Your task to perform on an android device: turn on airplane mode Image 0: 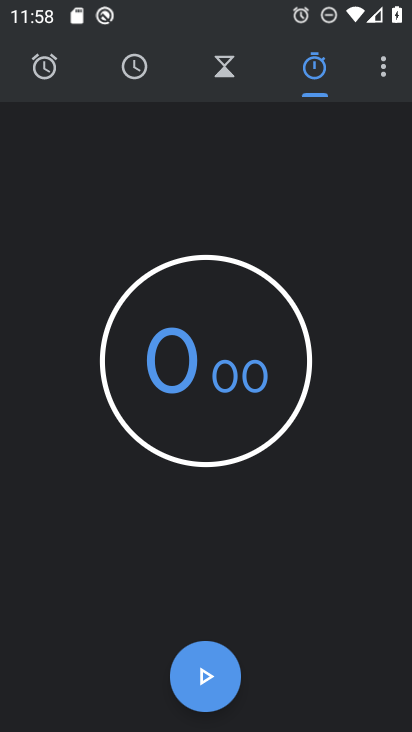
Step 0: press home button
Your task to perform on an android device: turn on airplane mode Image 1: 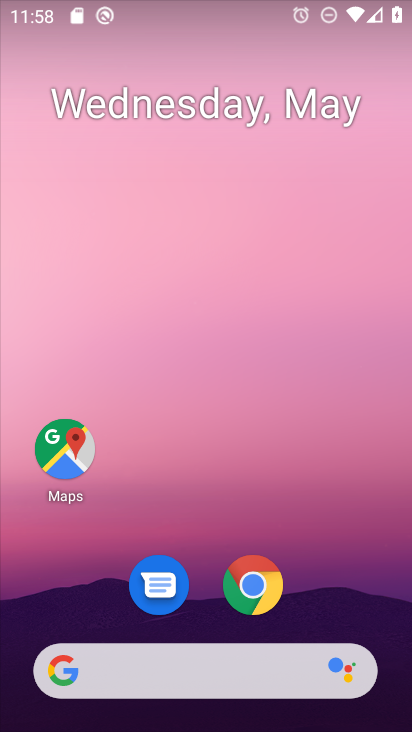
Step 1: drag from (225, 492) to (226, 30)
Your task to perform on an android device: turn on airplane mode Image 2: 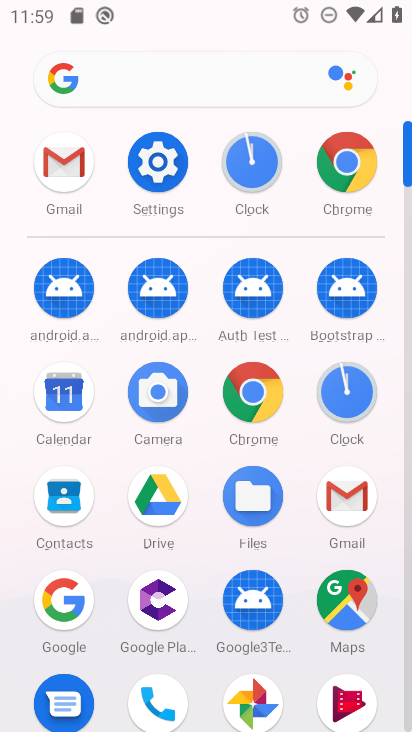
Step 2: click (159, 151)
Your task to perform on an android device: turn on airplane mode Image 3: 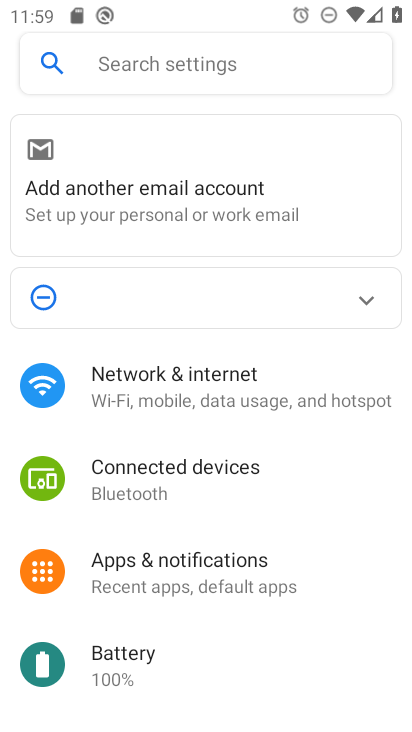
Step 3: click (201, 378)
Your task to perform on an android device: turn on airplane mode Image 4: 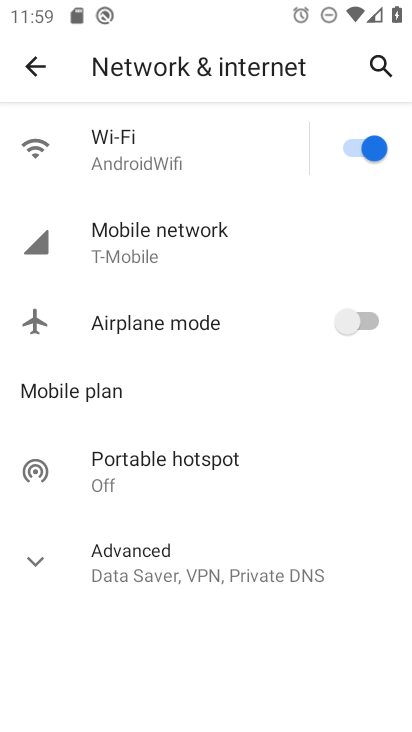
Step 4: click (359, 313)
Your task to perform on an android device: turn on airplane mode Image 5: 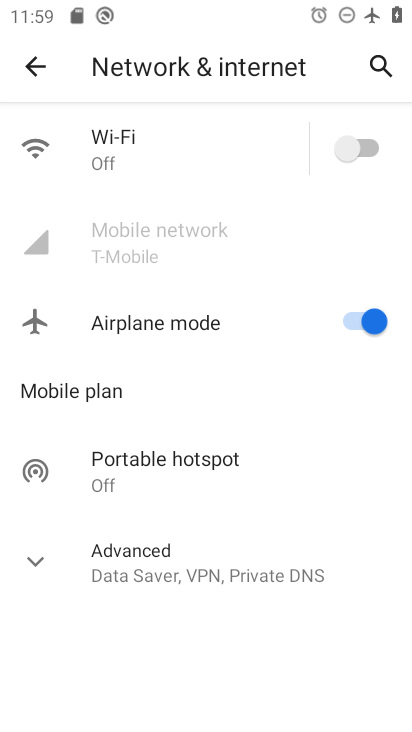
Step 5: task complete